Your task to perform on an android device: change the upload size in google photos Image 0: 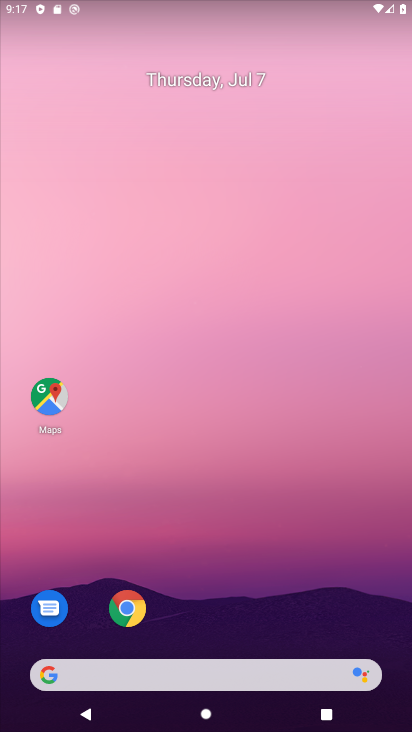
Step 0: drag from (186, 633) to (122, 10)
Your task to perform on an android device: change the upload size in google photos Image 1: 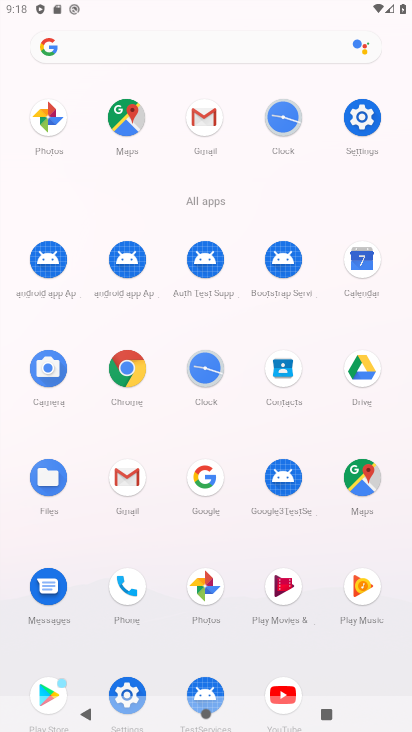
Step 1: click (212, 576)
Your task to perform on an android device: change the upload size in google photos Image 2: 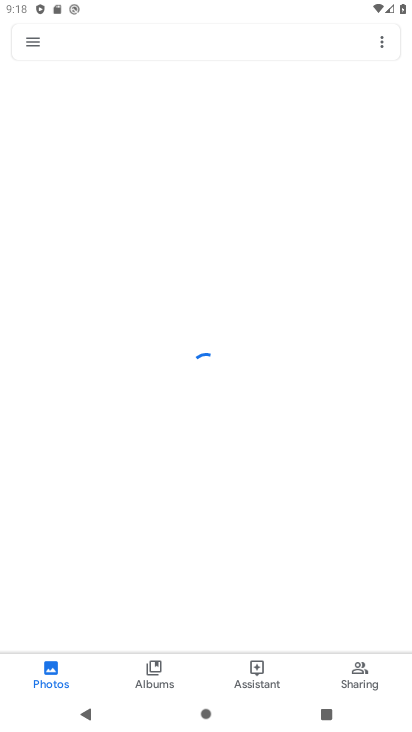
Step 2: click (20, 38)
Your task to perform on an android device: change the upload size in google photos Image 3: 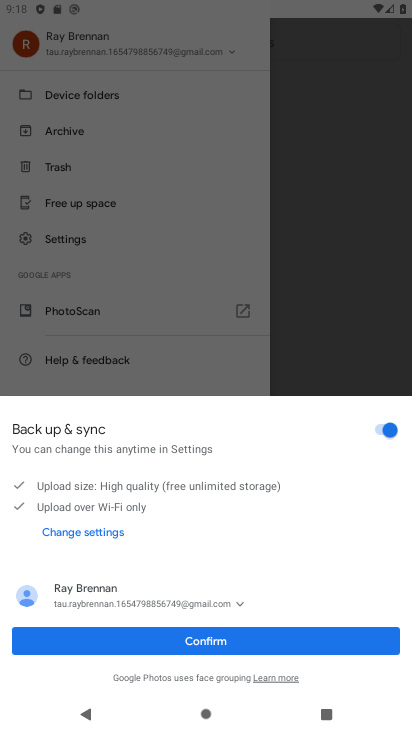
Step 3: click (92, 535)
Your task to perform on an android device: change the upload size in google photos Image 4: 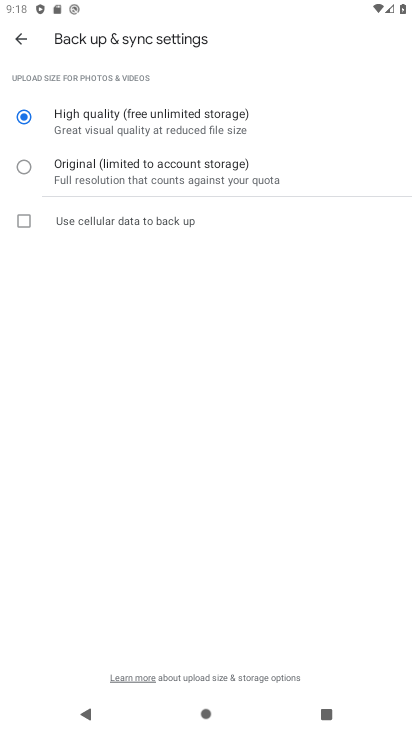
Step 4: click (80, 175)
Your task to perform on an android device: change the upload size in google photos Image 5: 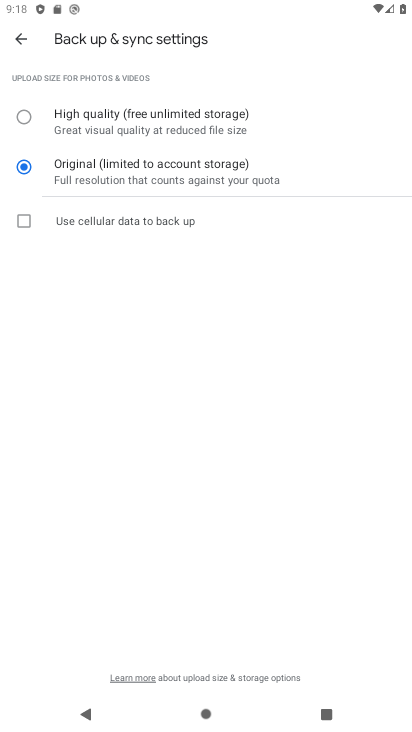
Step 5: task complete